Your task to perform on an android device: Empty the shopping cart on costco.com. Add "usb-c to usb-b" to the cart on costco.com, then select checkout. Image 0: 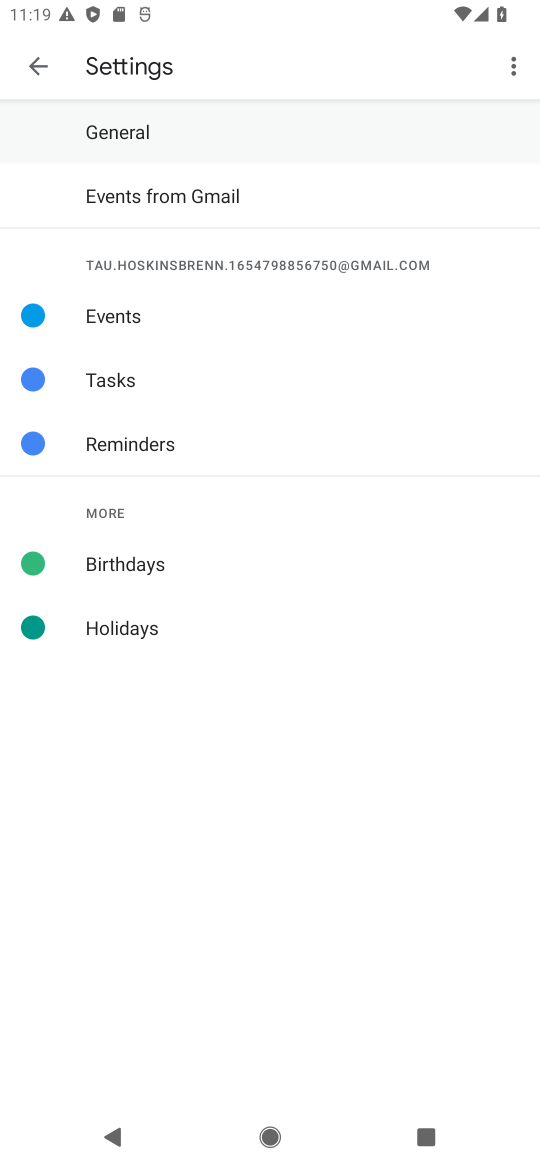
Step 0: press home button
Your task to perform on an android device: Empty the shopping cart on costco.com. Add "usb-c to usb-b" to the cart on costco.com, then select checkout. Image 1: 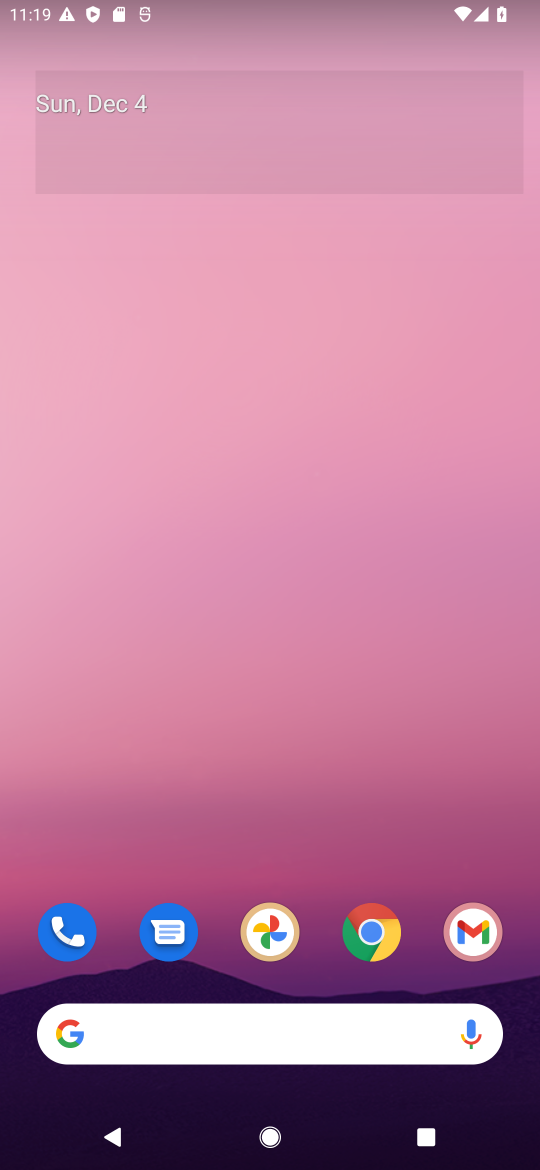
Step 1: click (365, 917)
Your task to perform on an android device: Empty the shopping cart on costco.com. Add "usb-c to usb-b" to the cart on costco.com, then select checkout. Image 2: 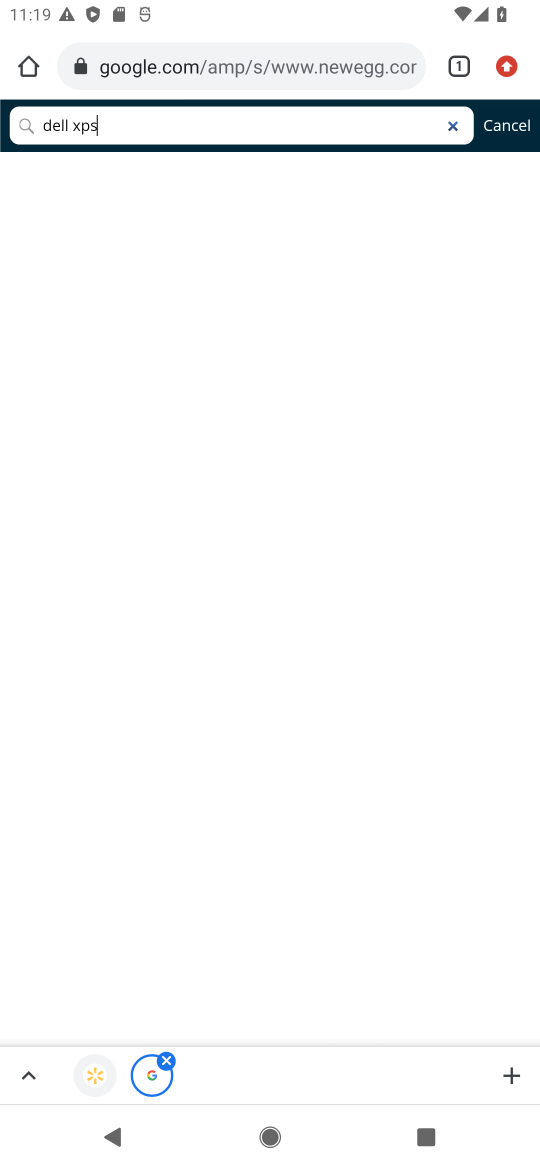
Step 2: click (277, 73)
Your task to perform on an android device: Empty the shopping cart on costco.com. Add "usb-c to usb-b" to the cart on costco.com, then select checkout. Image 3: 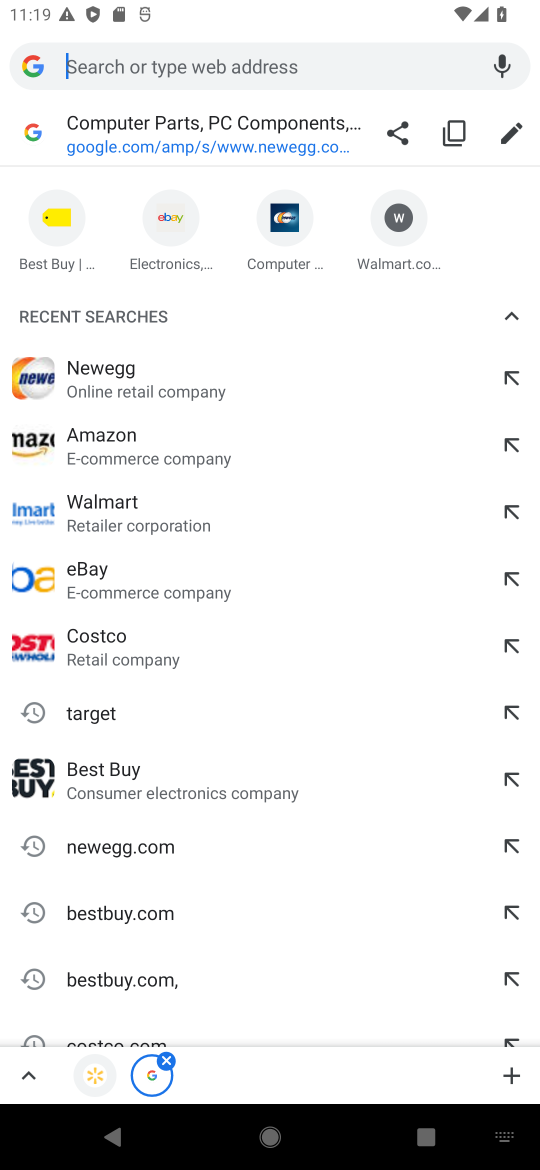
Step 3: click (160, 657)
Your task to perform on an android device: Empty the shopping cart on costco.com. Add "usb-c to usb-b" to the cart on costco.com, then select checkout. Image 4: 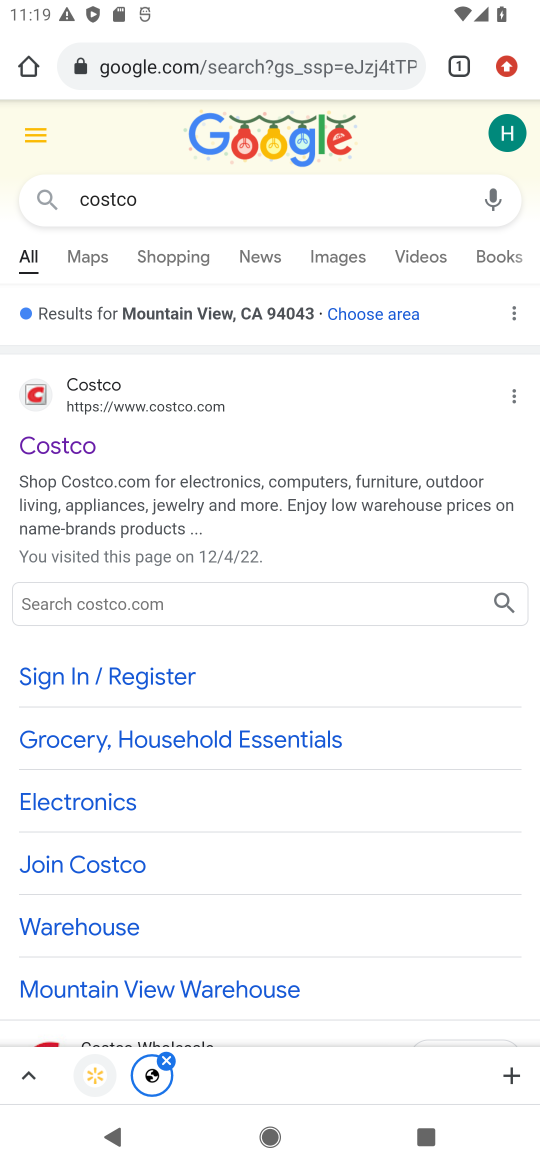
Step 4: click (66, 449)
Your task to perform on an android device: Empty the shopping cart on costco.com. Add "usb-c to usb-b" to the cart on costco.com, then select checkout. Image 5: 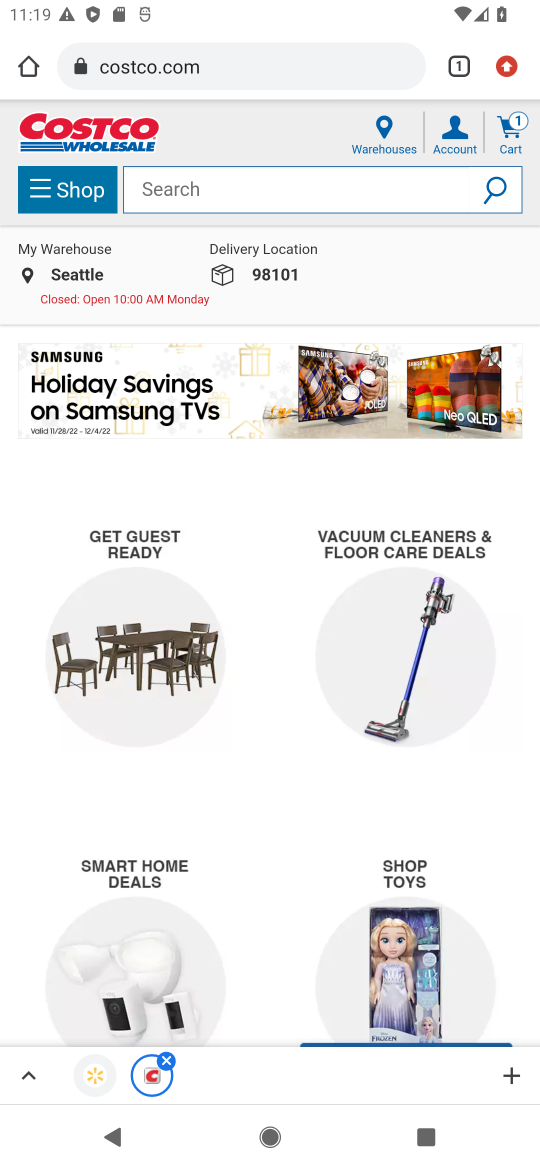
Step 5: click (350, 185)
Your task to perform on an android device: Empty the shopping cart on costco.com. Add "usb-c to usb-b" to the cart on costco.com, then select checkout. Image 6: 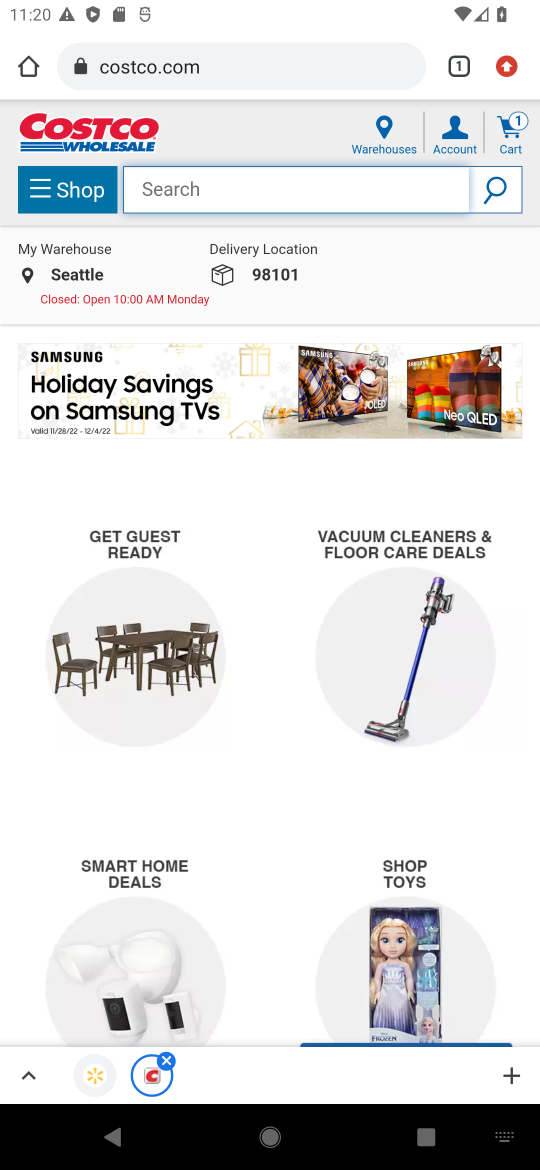
Step 6: type "usb-c to usb-b"
Your task to perform on an android device: Empty the shopping cart on costco.com. Add "usb-c to usb-b" to the cart on costco.com, then select checkout. Image 7: 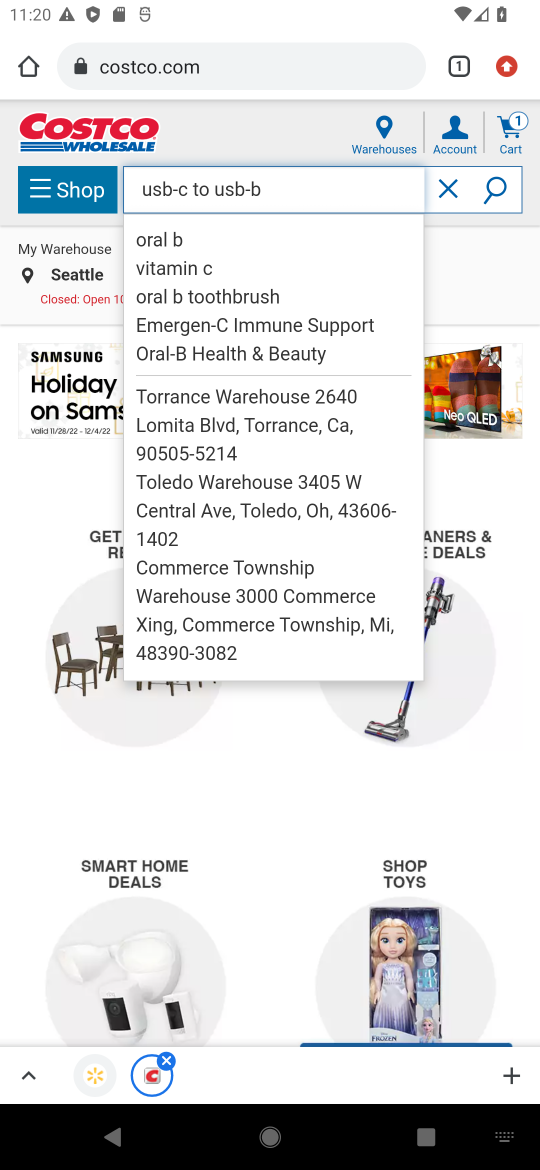
Step 7: click (188, 238)
Your task to perform on an android device: Empty the shopping cart on costco.com. Add "usb-c to usb-b" to the cart on costco.com, then select checkout. Image 8: 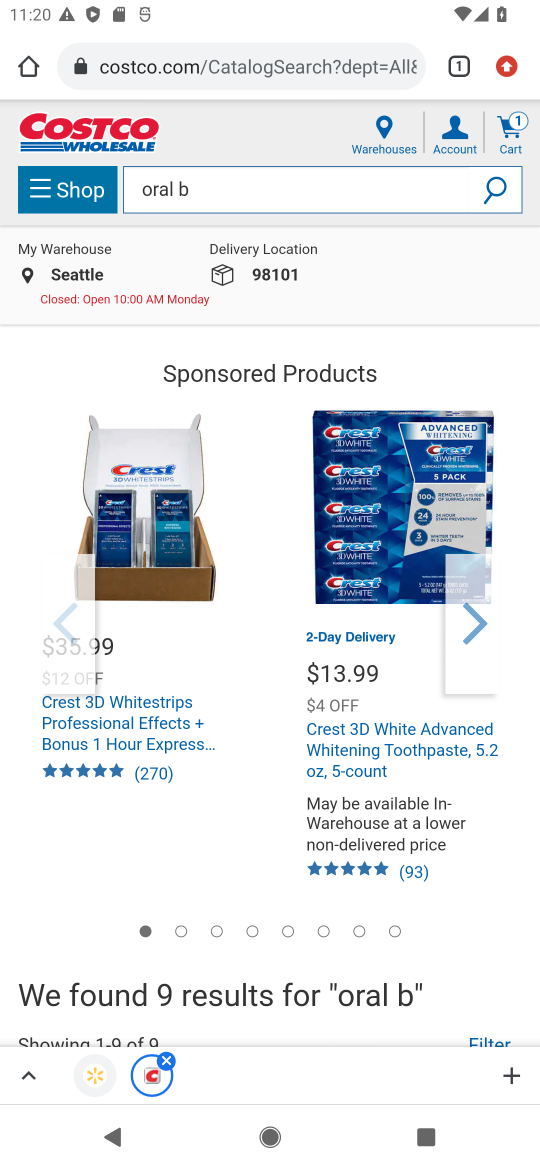
Step 8: drag from (351, 1022) to (299, 675)
Your task to perform on an android device: Empty the shopping cart on costco.com. Add "usb-c to usb-b" to the cart on costco.com, then select checkout. Image 9: 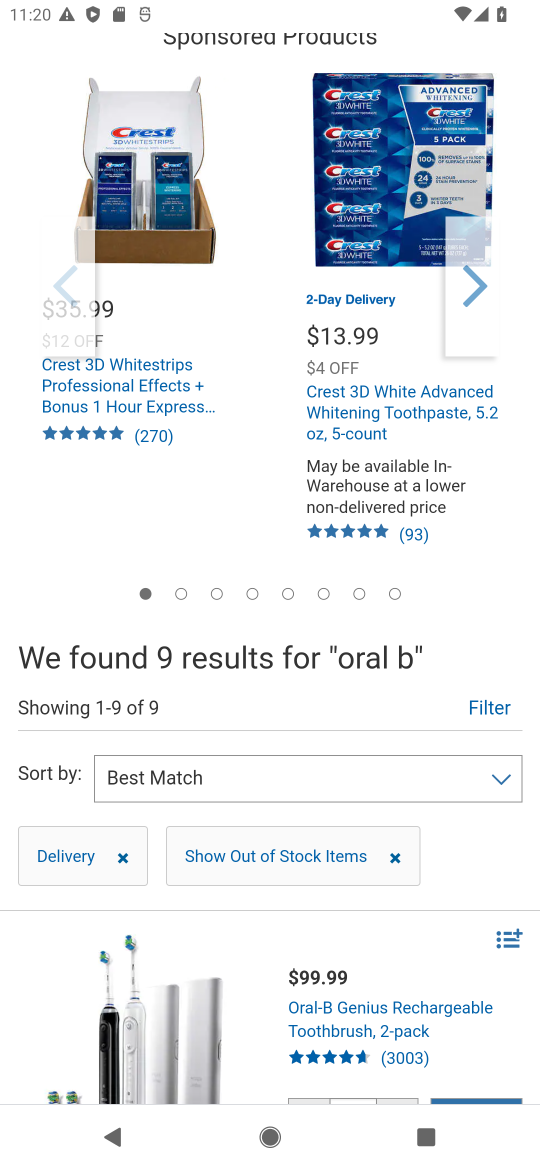
Step 9: click (148, 1001)
Your task to perform on an android device: Empty the shopping cart on costco.com. Add "usb-c to usb-b" to the cart on costco.com, then select checkout. Image 10: 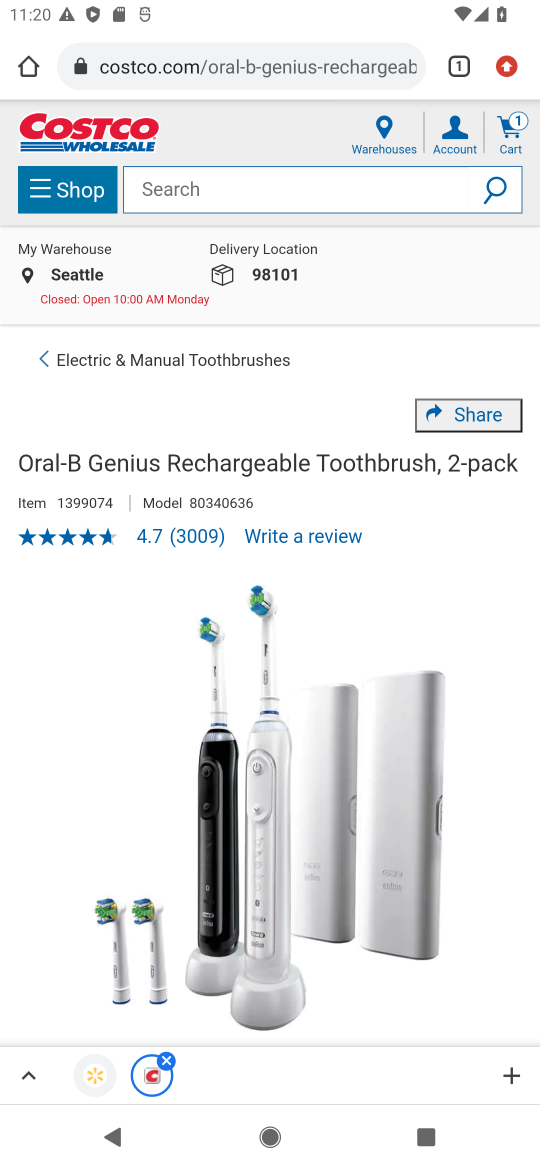
Step 10: drag from (399, 702) to (338, 210)
Your task to perform on an android device: Empty the shopping cart on costco.com. Add "usb-c to usb-b" to the cart on costco.com, then select checkout. Image 11: 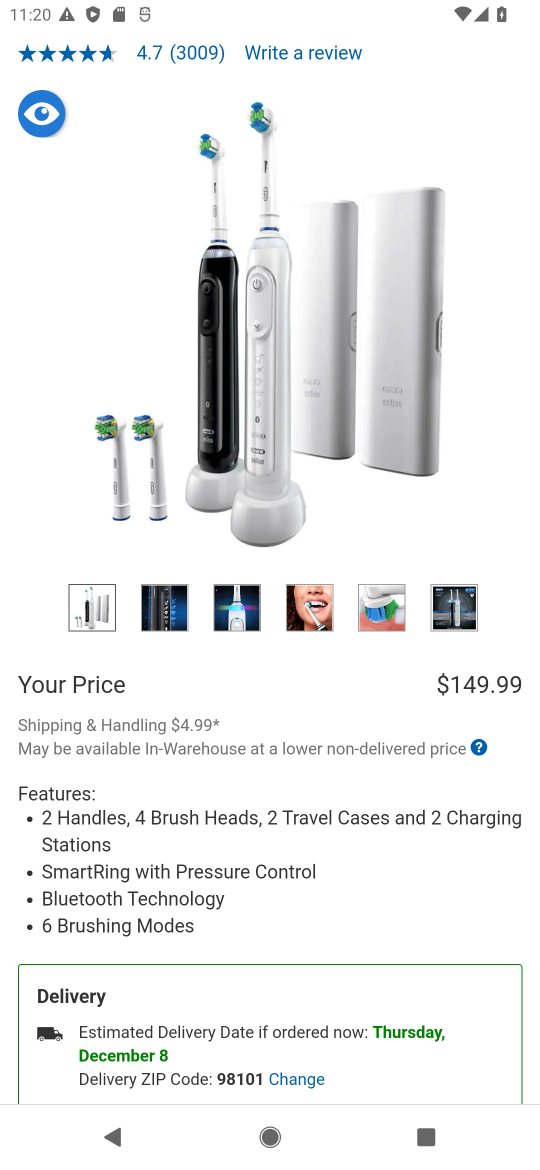
Step 11: drag from (367, 1025) to (336, 375)
Your task to perform on an android device: Empty the shopping cart on costco.com. Add "usb-c to usb-b" to the cart on costco.com, then select checkout. Image 12: 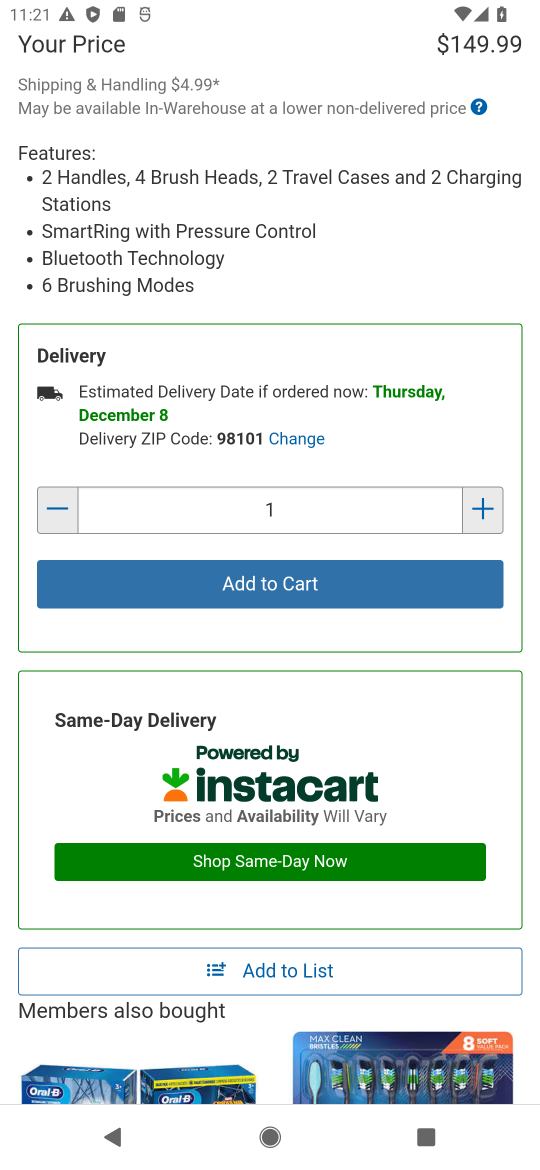
Step 12: click (279, 580)
Your task to perform on an android device: Empty the shopping cart on costco.com. Add "usb-c to usb-b" to the cart on costco.com, then select checkout. Image 13: 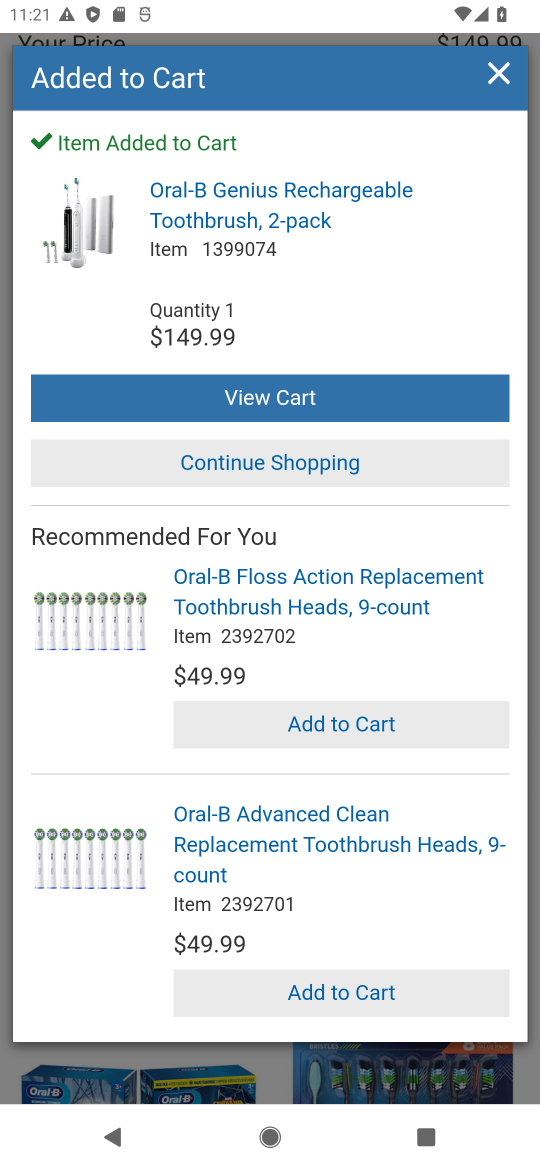
Step 13: click (322, 392)
Your task to perform on an android device: Empty the shopping cart on costco.com. Add "usb-c to usb-b" to the cart on costco.com, then select checkout. Image 14: 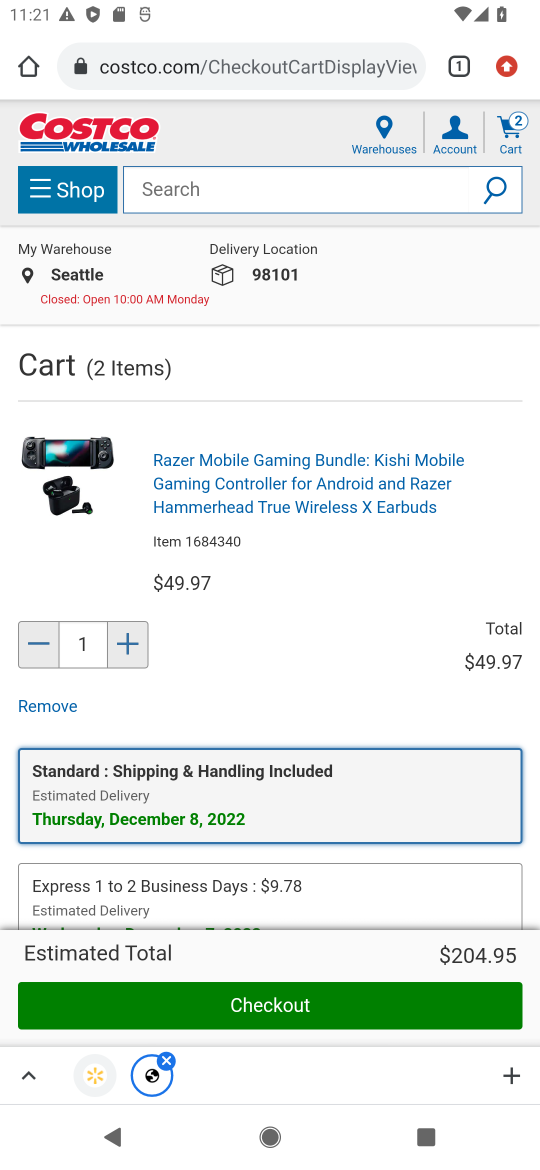
Step 14: task complete